Your task to perform on an android device: toggle javascript in the chrome app Image 0: 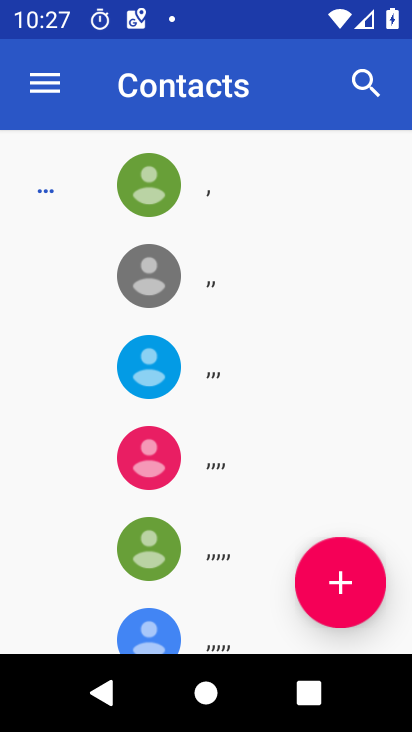
Step 0: press home button
Your task to perform on an android device: toggle javascript in the chrome app Image 1: 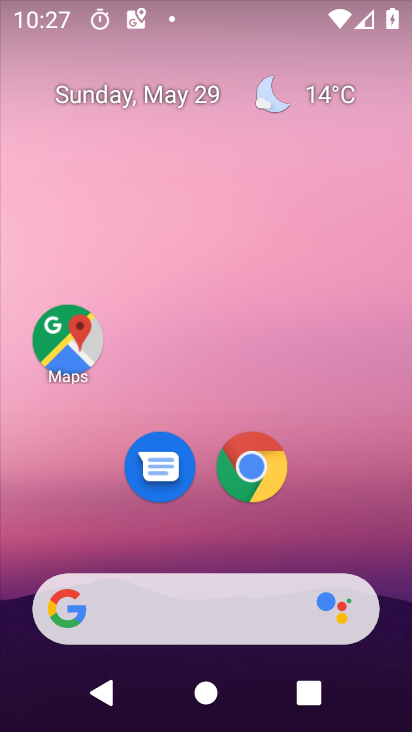
Step 1: click (231, 465)
Your task to perform on an android device: toggle javascript in the chrome app Image 2: 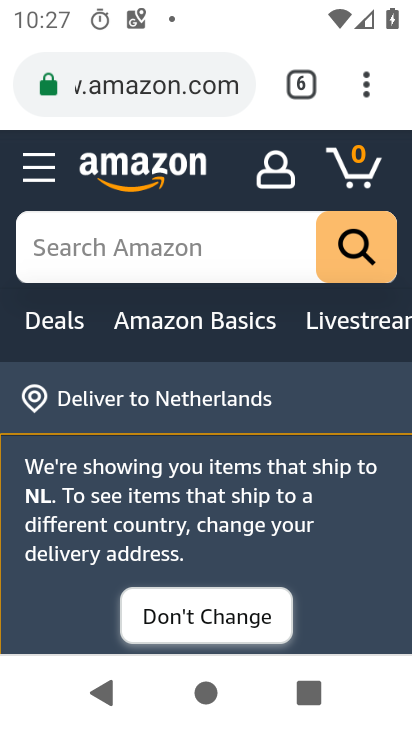
Step 2: click (372, 88)
Your task to perform on an android device: toggle javascript in the chrome app Image 3: 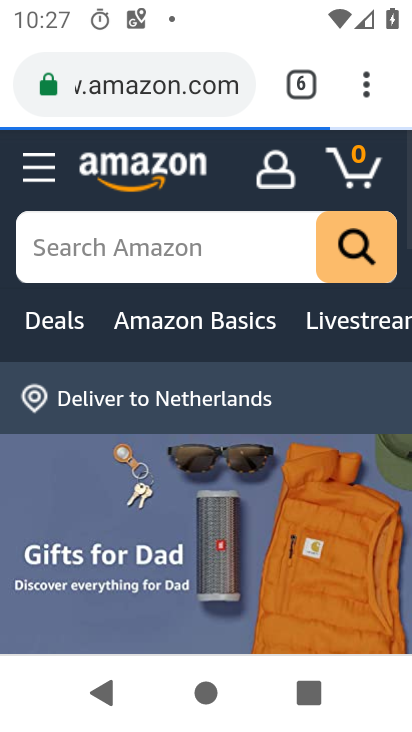
Step 3: click (372, 88)
Your task to perform on an android device: toggle javascript in the chrome app Image 4: 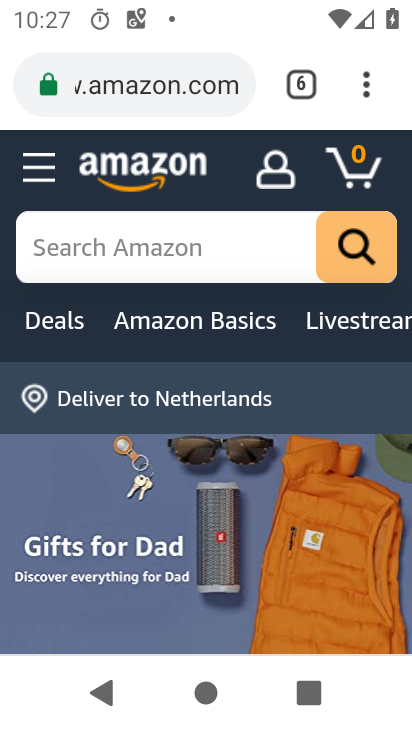
Step 4: click (372, 89)
Your task to perform on an android device: toggle javascript in the chrome app Image 5: 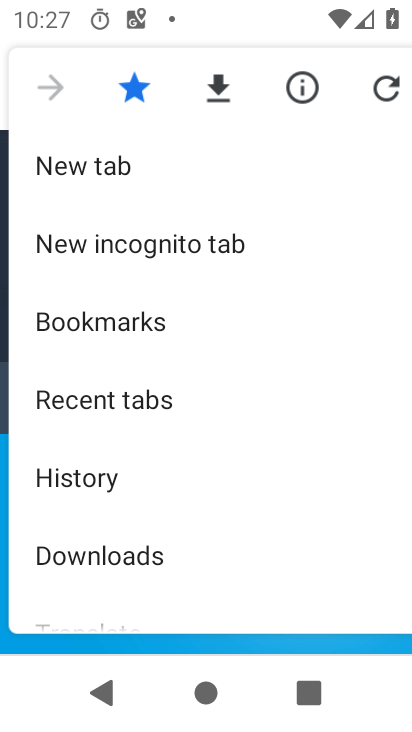
Step 5: drag from (214, 536) to (226, 289)
Your task to perform on an android device: toggle javascript in the chrome app Image 6: 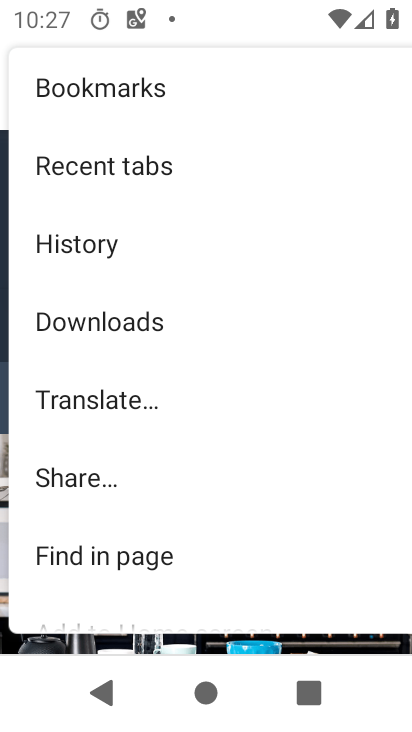
Step 6: drag from (195, 525) to (211, 294)
Your task to perform on an android device: toggle javascript in the chrome app Image 7: 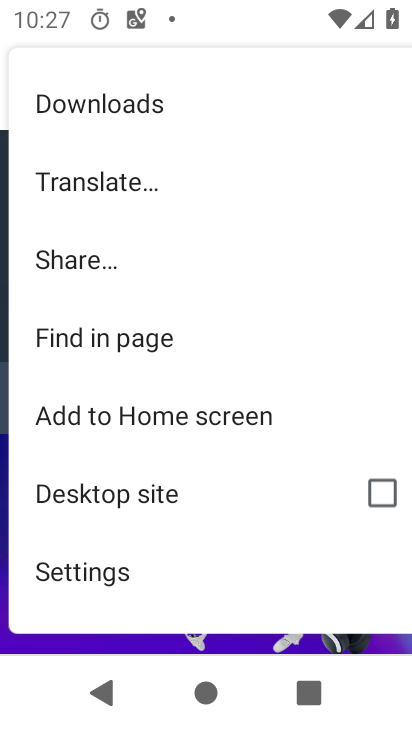
Step 7: drag from (191, 479) to (198, 275)
Your task to perform on an android device: toggle javascript in the chrome app Image 8: 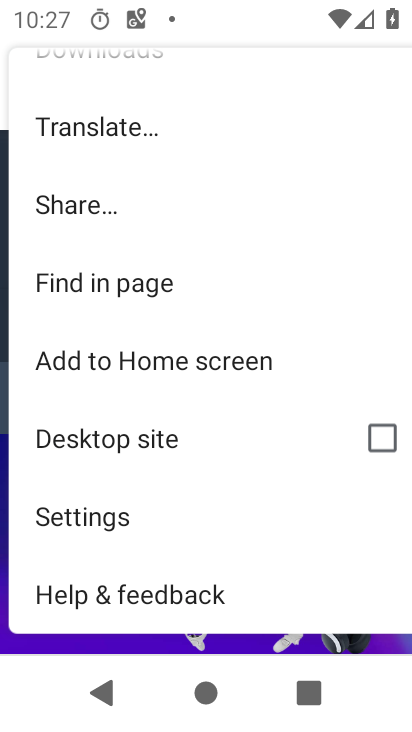
Step 8: drag from (193, 518) to (209, 312)
Your task to perform on an android device: toggle javascript in the chrome app Image 9: 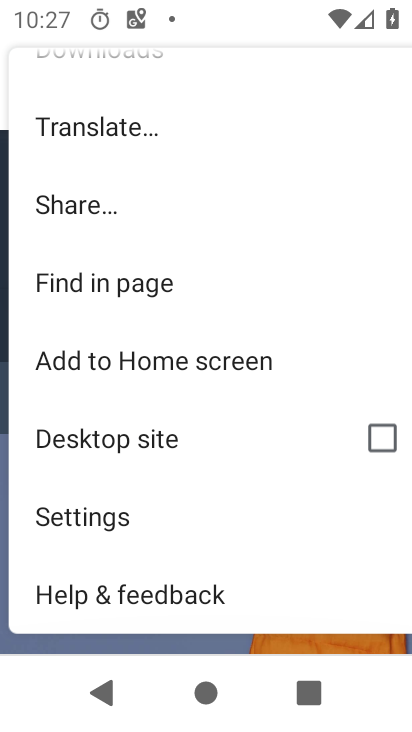
Step 9: drag from (217, 226) to (216, 513)
Your task to perform on an android device: toggle javascript in the chrome app Image 10: 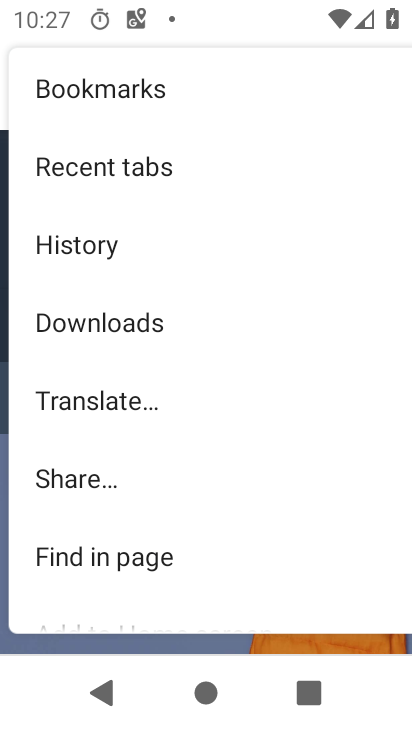
Step 10: drag from (221, 225) to (234, 438)
Your task to perform on an android device: toggle javascript in the chrome app Image 11: 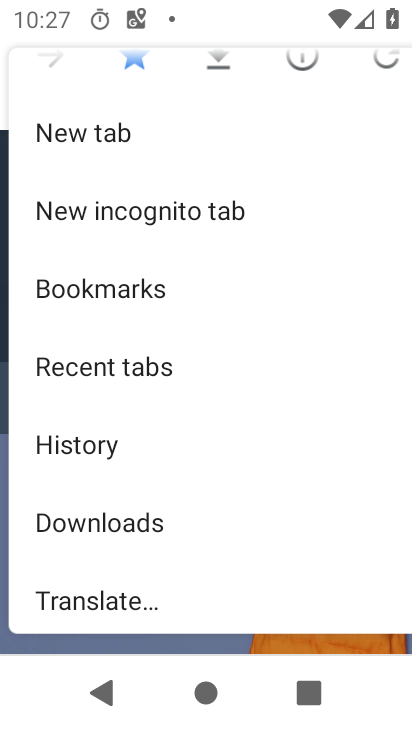
Step 11: drag from (221, 181) to (224, 459)
Your task to perform on an android device: toggle javascript in the chrome app Image 12: 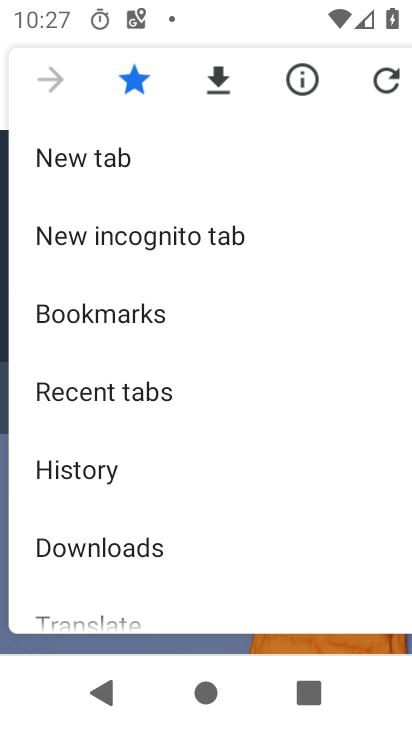
Step 12: drag from (214, 494) to (207, 229)
Your task to perform on an android device: toggle javascript in the chrome app Image 13: 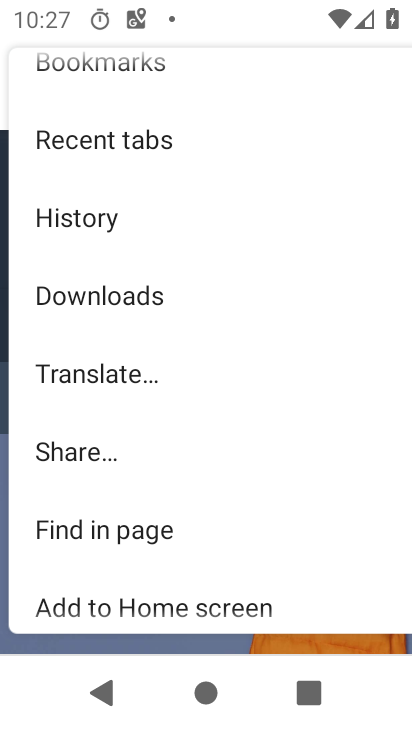
Step 13: drag from (173, 536) to (174, 306)
Your task to perform on an android device: toggle javascript in the chrome app Image 14: 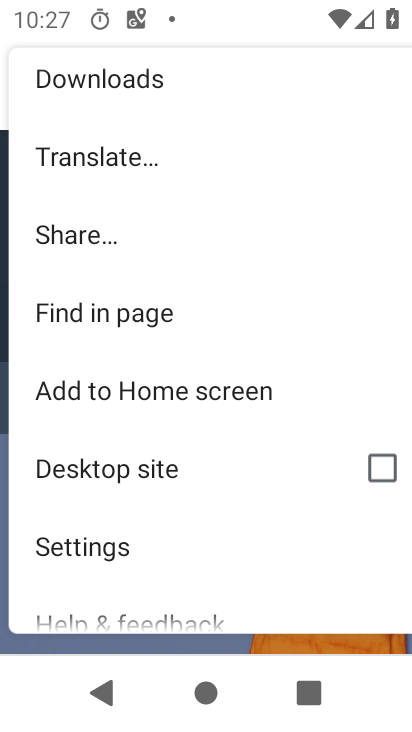
Step 14: click (132, 547)
Your task to perform on an android device: toggle javascript in the chrome app Image 15: 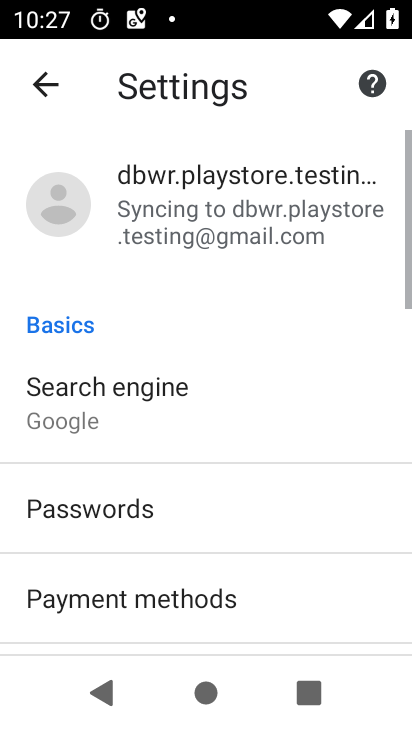
Step 15: drag from (153, 570) to (180, 286)
Your task to perform on an android device: toggle javascript in the chrome app Image 16: 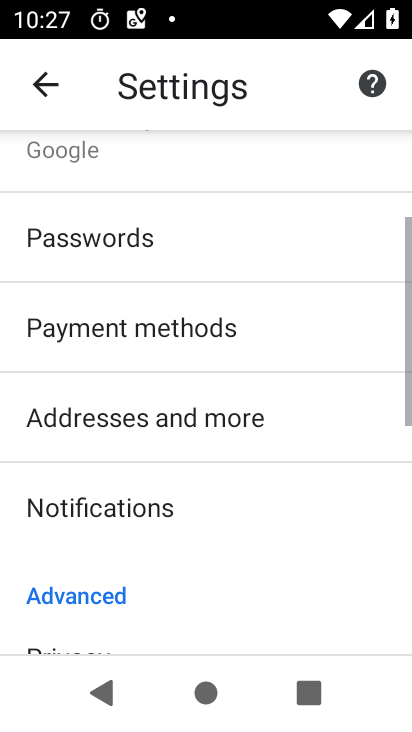
Step 16: drag from (174, 547) to (186, 316)
Your task to perform on an android device: toggle javascript in the chrome app Image 17: 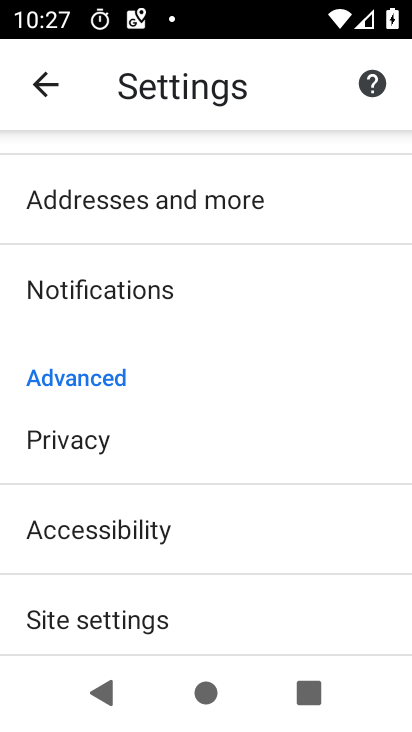
Step 17: drag from (210, 582) to (221, 415)
Your task to perform on an android device: toggle javascript in the chrome app Image 18: 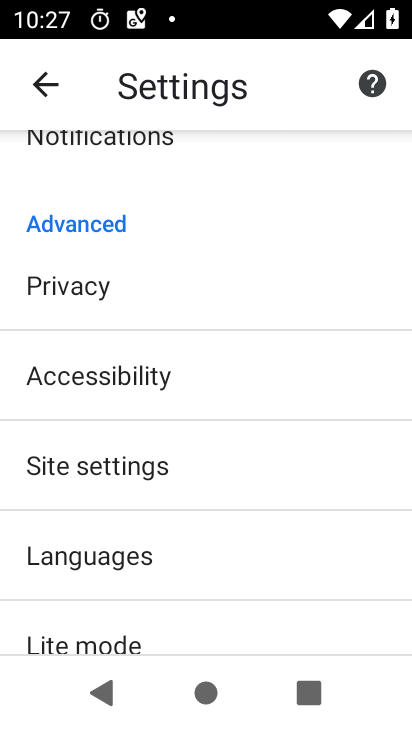
Step 18: click (203, 466)
Your task to perform on an android device: toggle javascript in the chrome app Image 19: 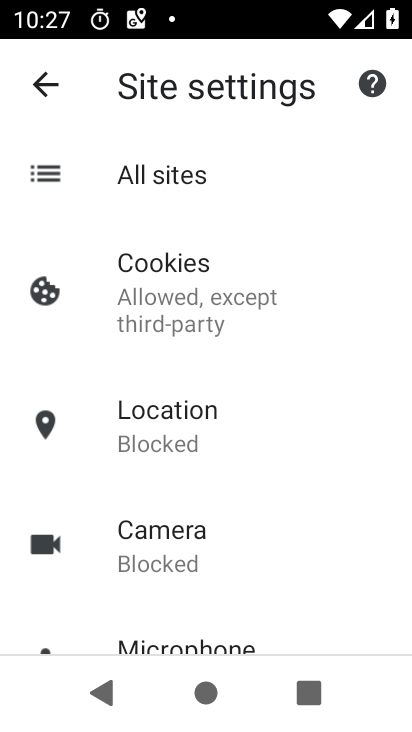
Step 19: drag from (213, 560) to (232, 319)
Your task to perform on an android device: toggle javascript in the chrome app Image 20: 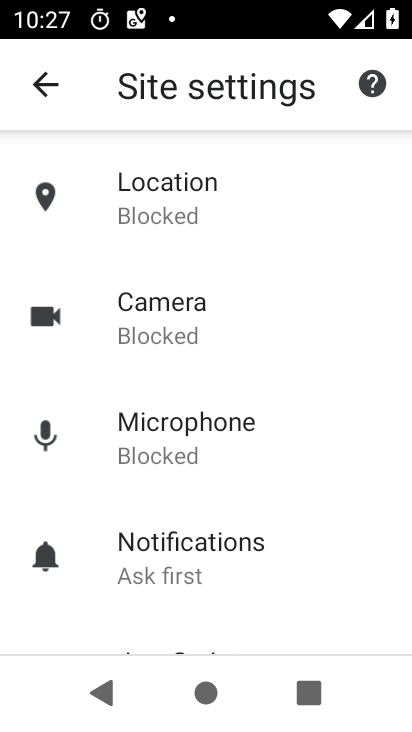
Step 20: drag from (226, 557) to (245, 340)
Your task to perform on an android device: toggle javascript in the chrome app Image 21: 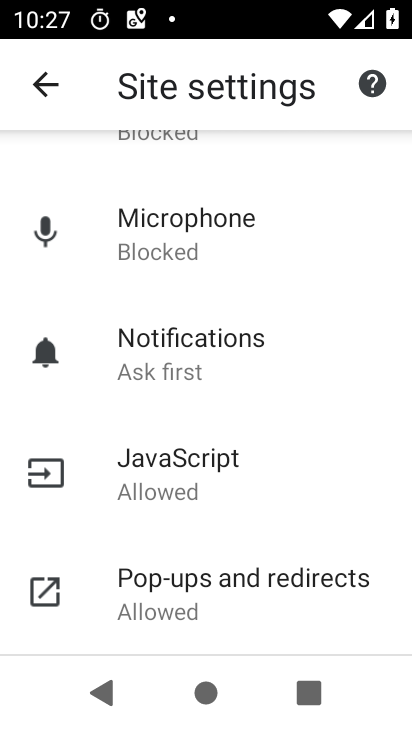
Step 21: click (238, 462)
Your task to perform on an android device: toggle javascript in the chrome app Image 22: 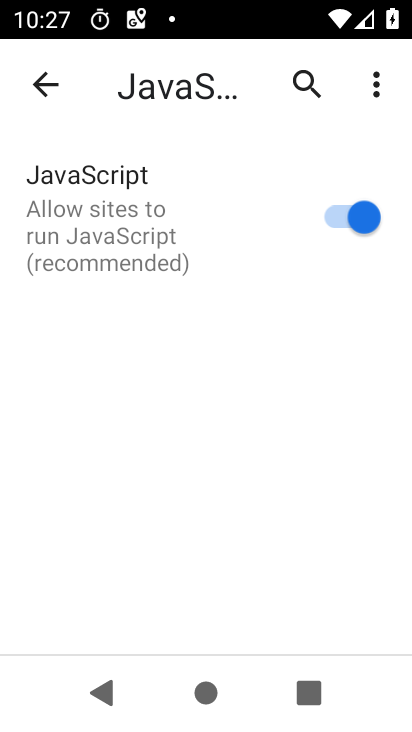
Step 22: click (338, 218)
Your task to perform on an android device: toggle javascript in the chrome app Image 23: 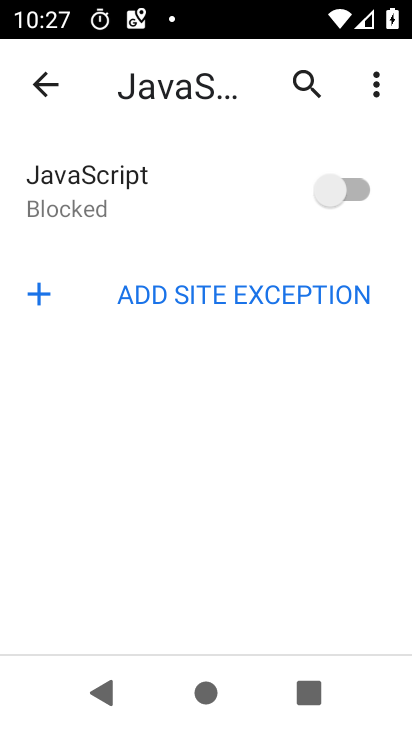
Step 23: task complete